Your task to perform on an android device: open app "McDonald's" Image 0: 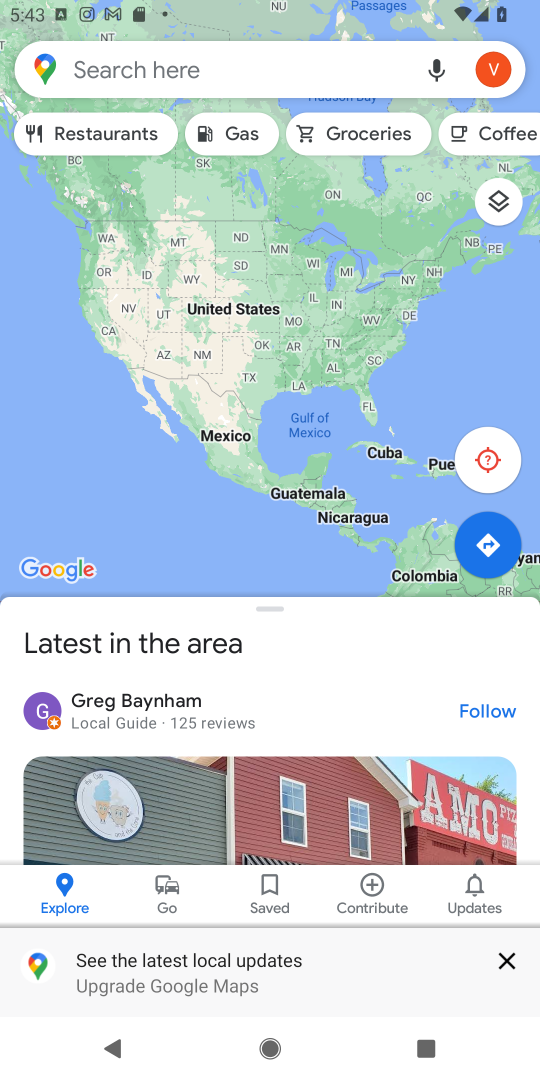
Step 0: press home button
Your task to perform on an android device: open app "McDonald's" Image 1: 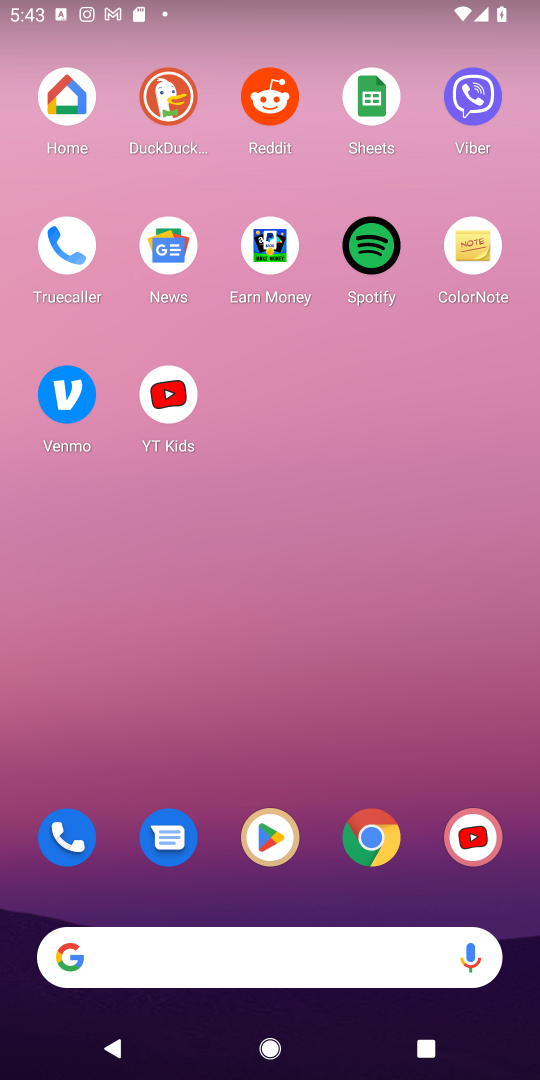
Step 1: click (271, 842)
Your task to perform on an android device: open app "McDonald's" Image 2: 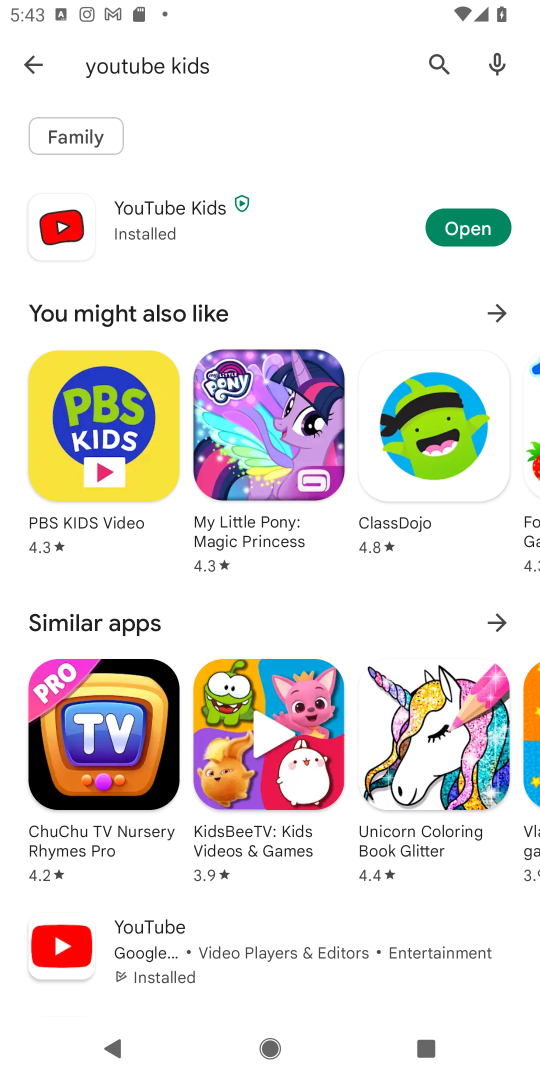
Step 2: click (439, 61)
Your task to perform on an android device: open app "McDonald's" Image 3: 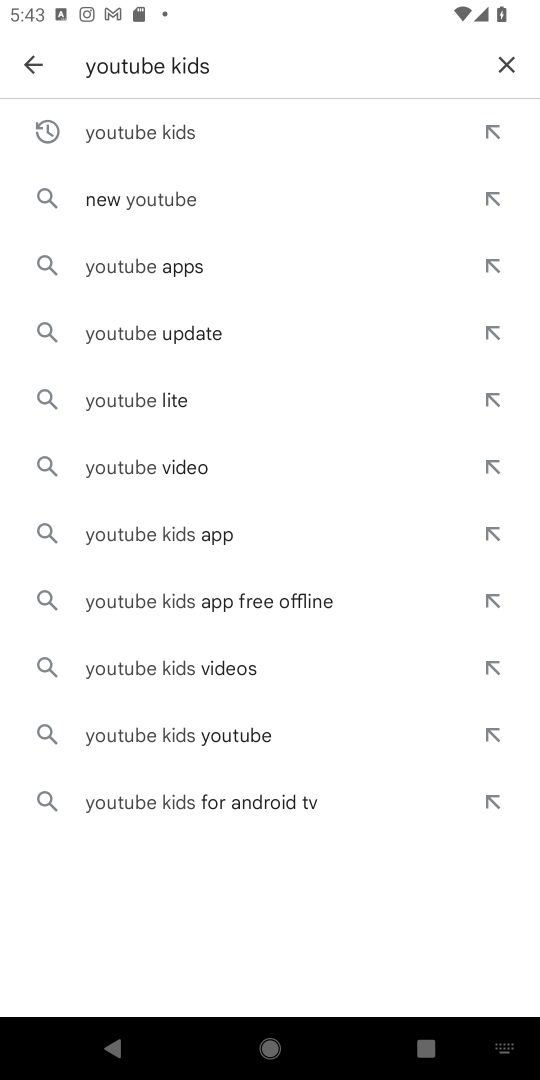
Step 3: click (509, 58)
Your task to perform on an android device: open app "McDonald's" Image 4: 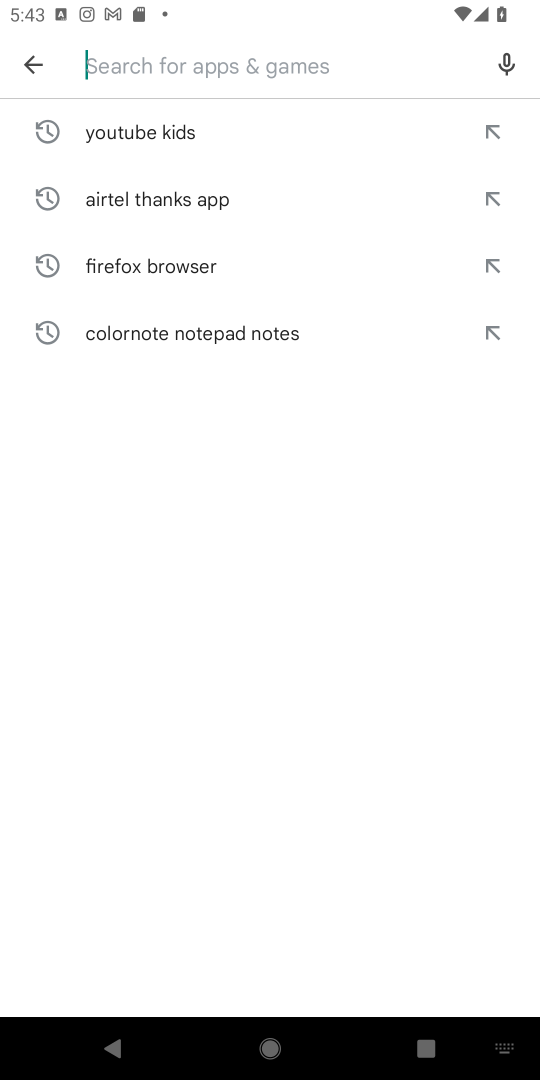
Step 4: type "McDonald's"
Your task to perform on an android device: open app "McDonald's" Image 5: 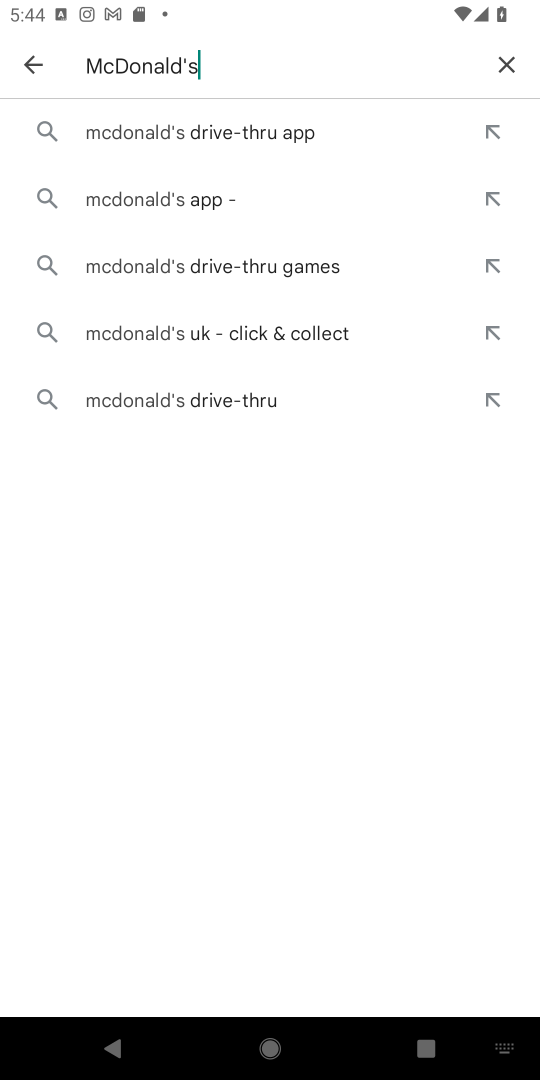
Step 5: click (260, 135)
Your task to perform on an android device: open app "McDonald's" Image 6: 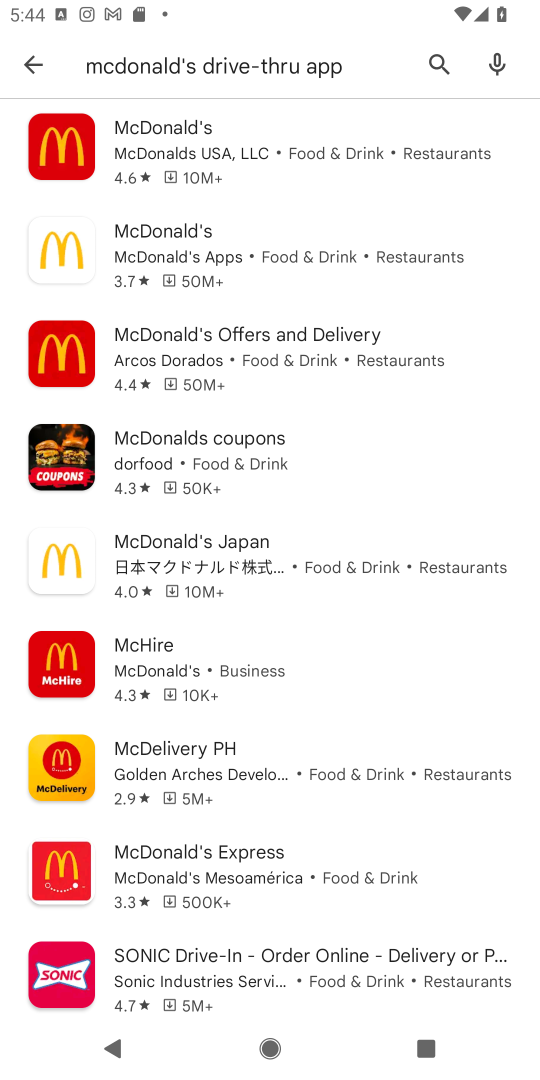
Step 6: click (216, 164)
Your task to perform on an android device: open app "McDonald's" Image 7: 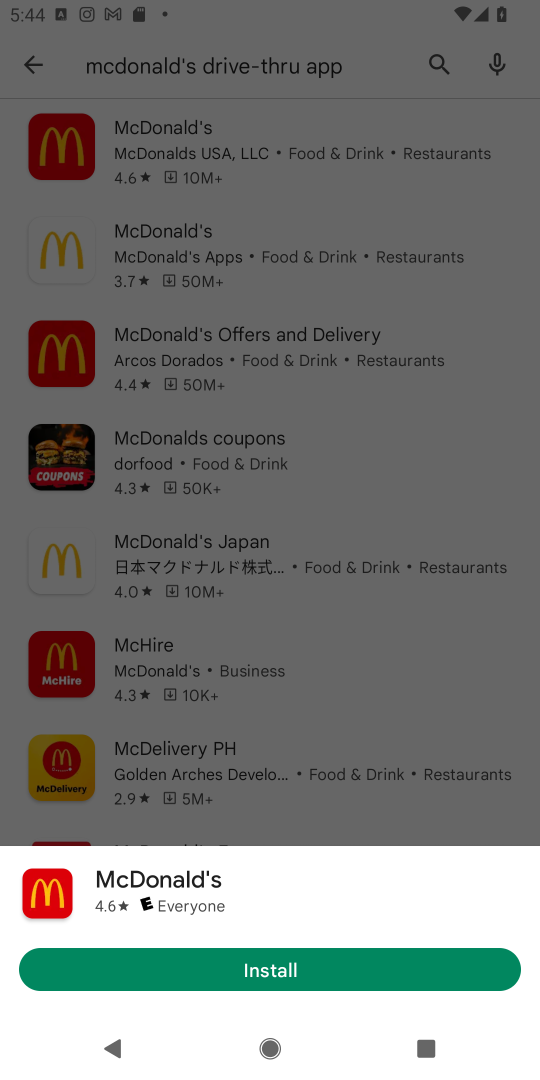
Step 7: click (256, 975)
Your task to perform on an android device: open app "McDonald's" Image 8: 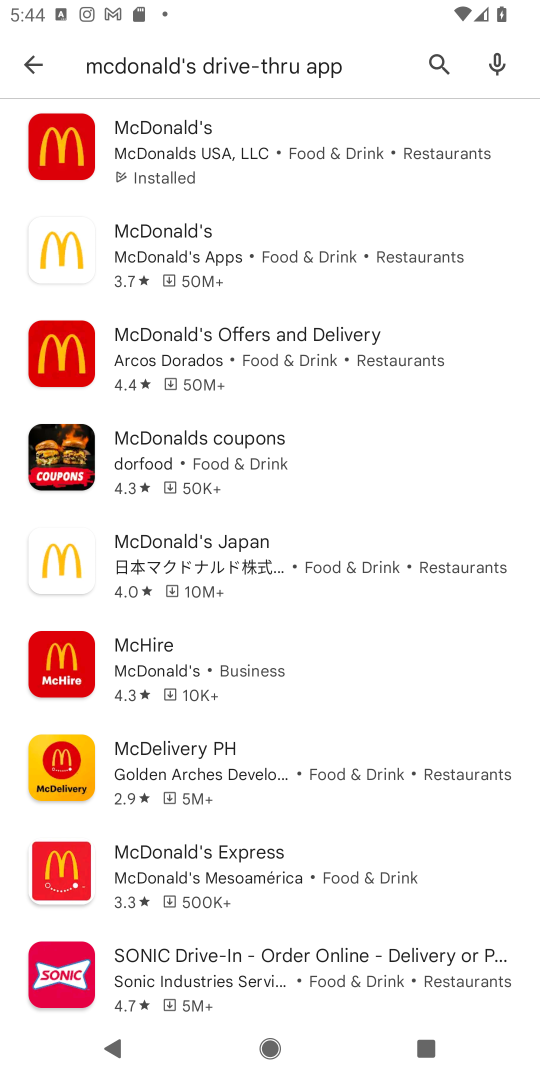
Step 8: click (192, 166)
Your task to perform on an android device: open app "McDonald's" Image 9: 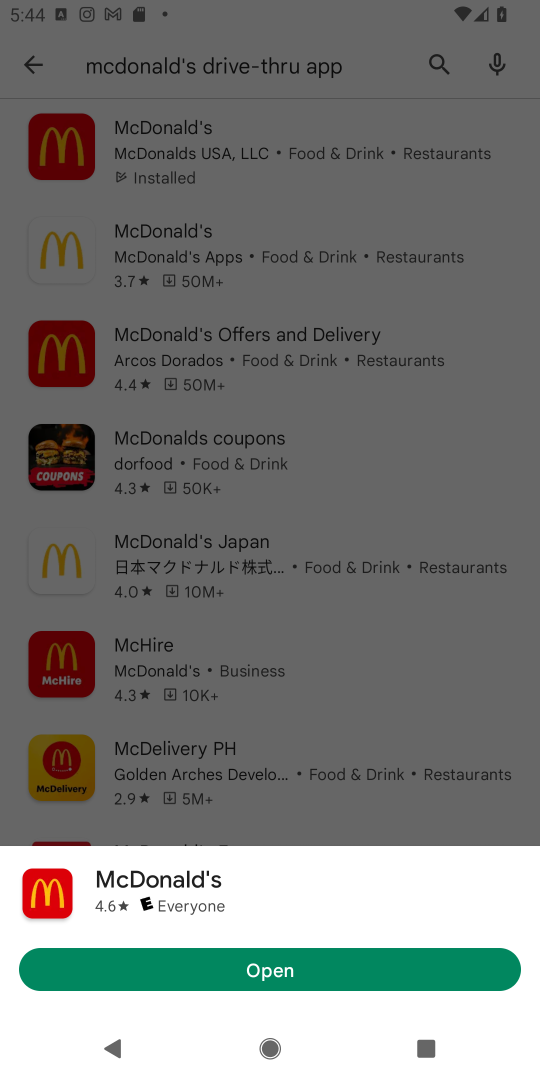
Step 9: click (282, 973)
Your task to perform on an android device: open app "McDonald's" Image 10: 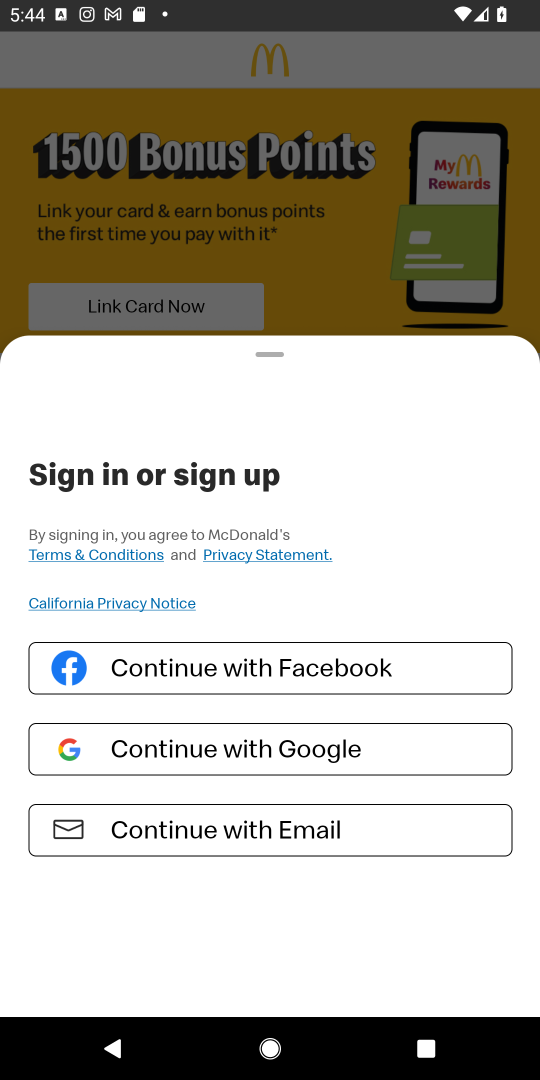
Step 10: task complete